Your task to perform on an android device: manage bookmarks in the chrome app Image 0: 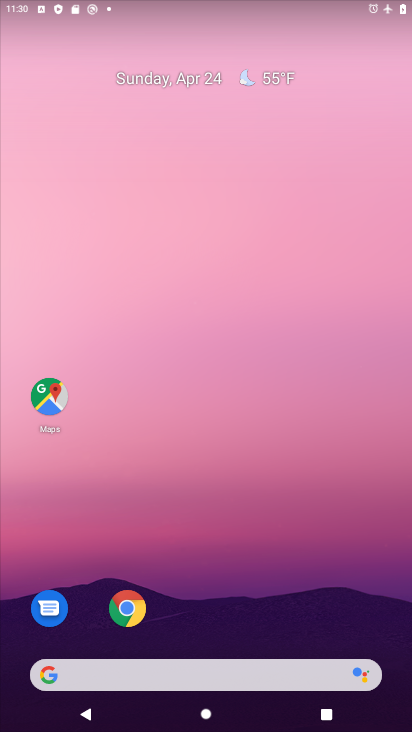
Step 0: click (121, 608)
Your task to perform on an android device: manage bookmarks in the chrome app Image 1: 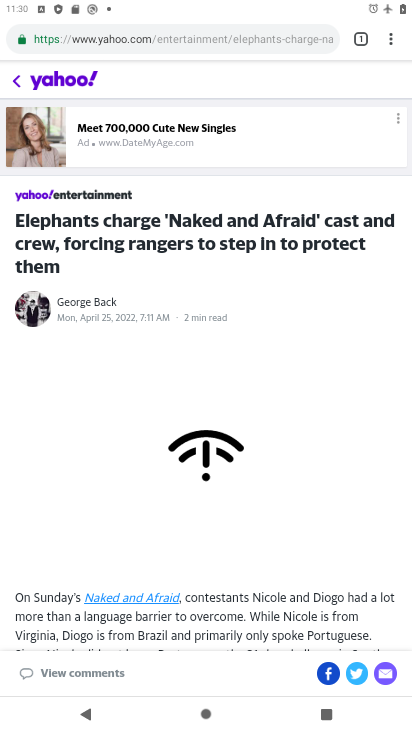
Step 1: click (388, 41)
Your task to perform on an android device: manage bookmarks in the chrome app Image 2: 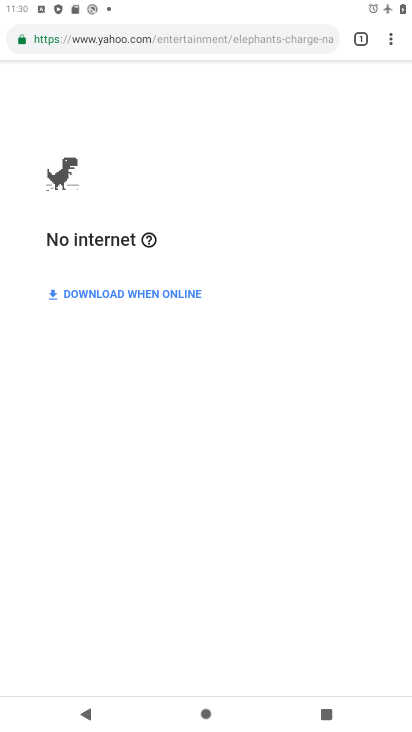
Step 2: click (388, 41)
Your task to perform on an android device: manage bookmarks in the chrome app Image 3: 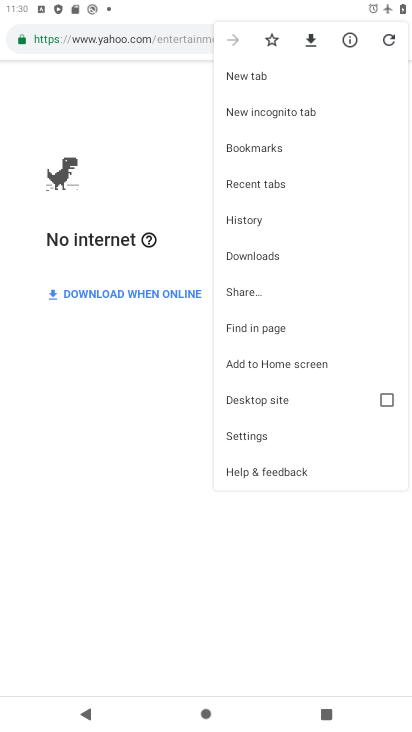
Step 3: click (251, 148)
Your task to perform on an android device: manage bookmarks in the chrome app Image 4: 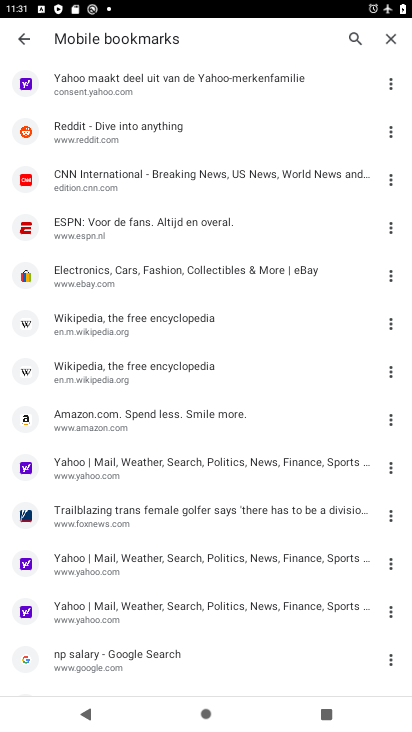
Step 4: drag from (308, 557) to (305, 211)
Your task to perform on an android device: manage bookmarks in the chrome app Image 5: 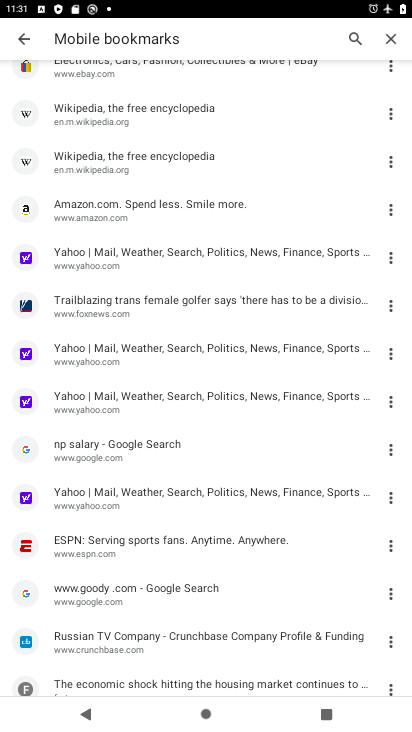
Step 5: click (139, 492)
Your task to perform on an android device: manage bookmarks in the chrome app Image 6: 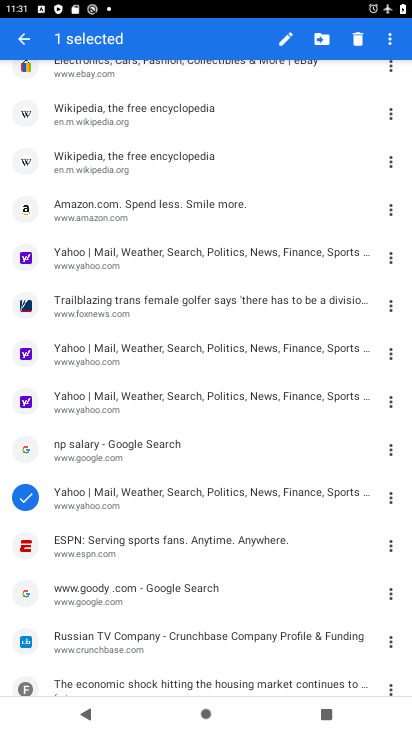
Step 6: click (321, 40)
Your task to perform on an android device: manage bookmarks in the chrome app Image 7: 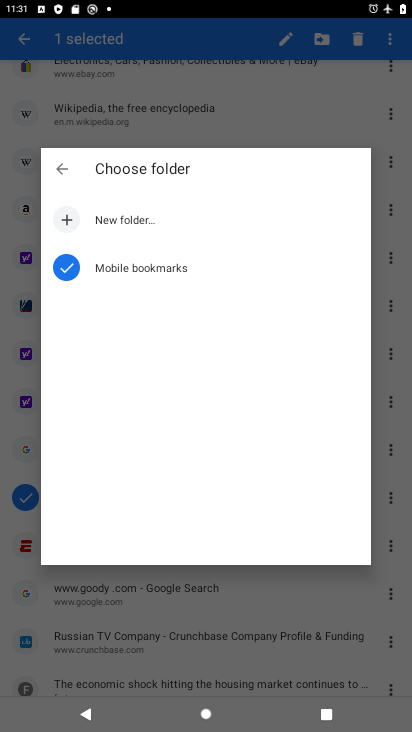
Step 7: click (66, 217)
Your task to perform on an android device: manage bookmarks in the chrome app Image 8: 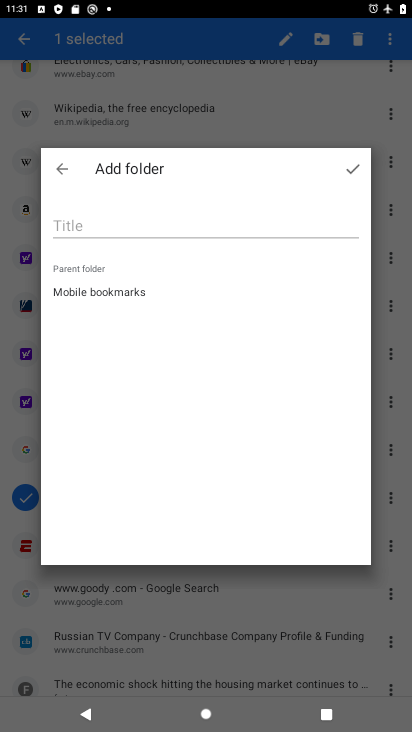
Step 8: click (106, 214)
Your task to perform on an android device: manage bookmarks in the chrome app Image 9: 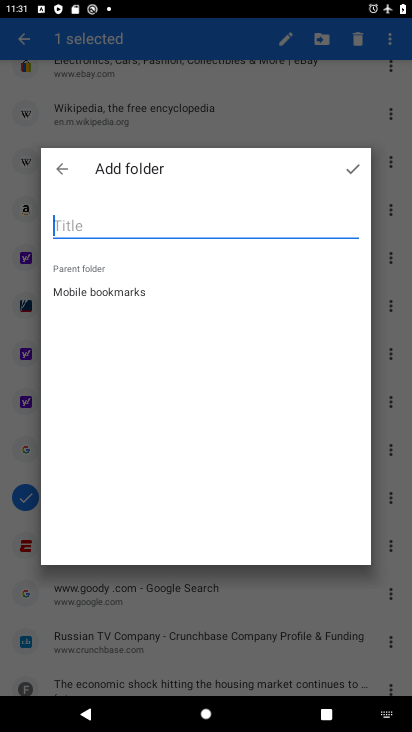
Step 9: type "aewtt"
Your task to perform on an android device: manage bookmarks in the chrome app Image 10: 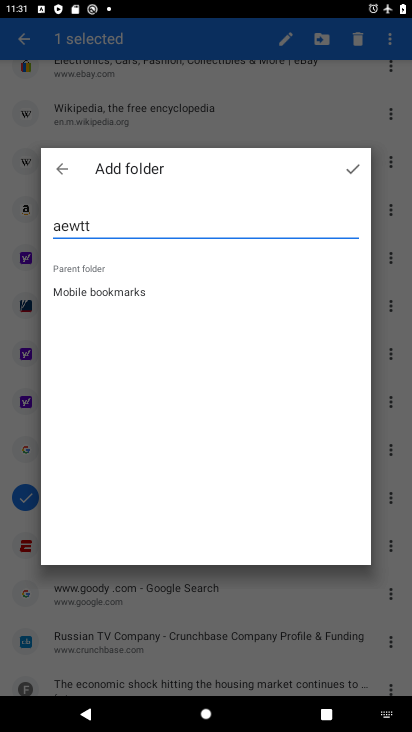
Step 10: click (353, 166)
Your task to perform on an android device: manage bookmarks in the chrome app Image 11: 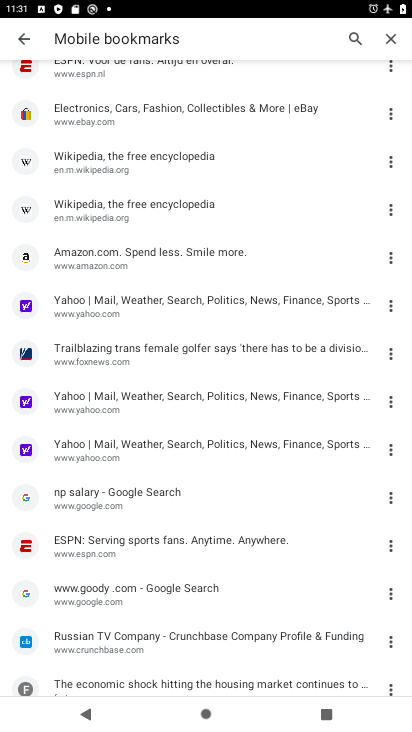
Step 11: task complete